Your task to perform on an android device: Open Yahoo.com Image 0: 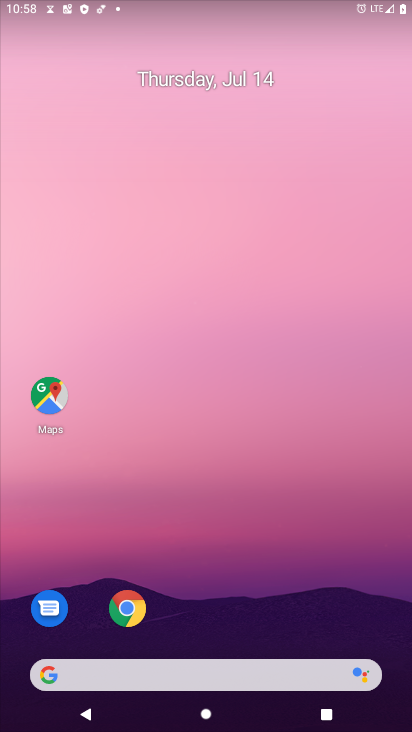
Step 0: click (127, 609)
Your task to perform on an android device: Open Yahoo.com Image 1: 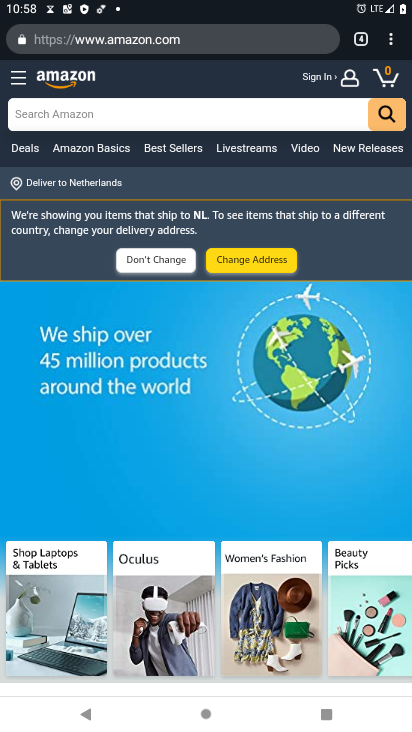
Step 1: click (396, 41)
Your task to perform on an android device: Open Yahoo.com Image 2: 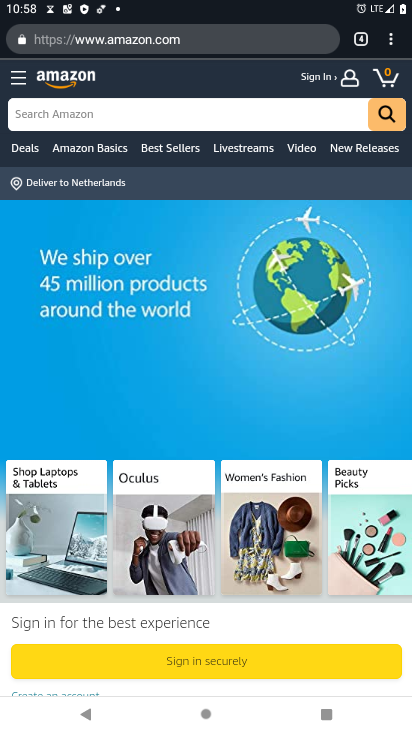
Step 2: click (394, 50)
Your task to perform on an android device: Open Yahoo.com Image 3: 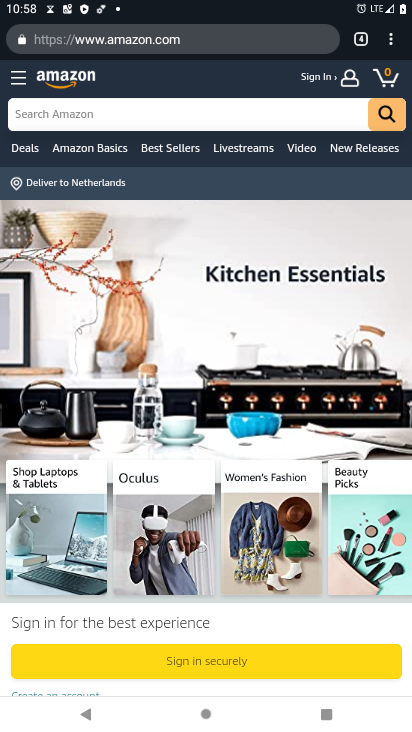
Step 3: click (391, 46)
Your task to perform on an android device: Open Yahoo.com Image 4: 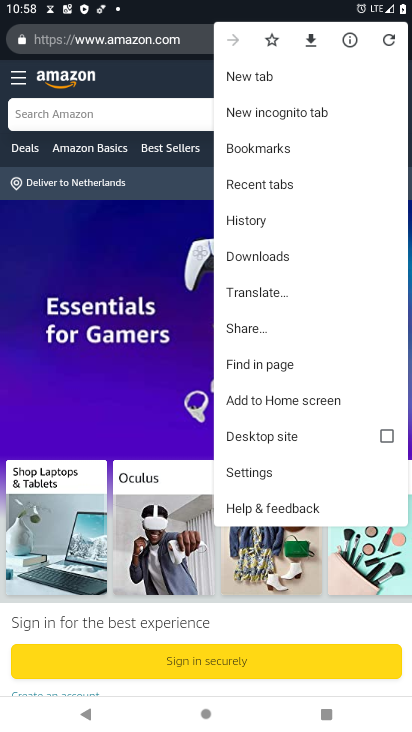
Step 4: click (252, 76)
Your task to perform on an android device: Open Yahoo.com Image 5: 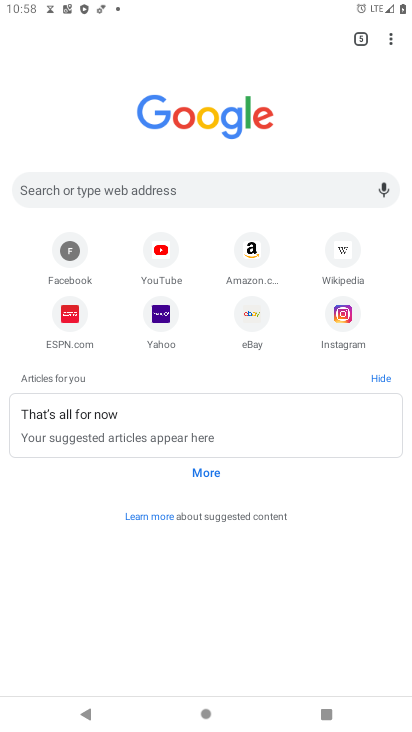
Step 5: click (153, 317)
Your task to perform on an android device: Open Yahoo.com Image 6: 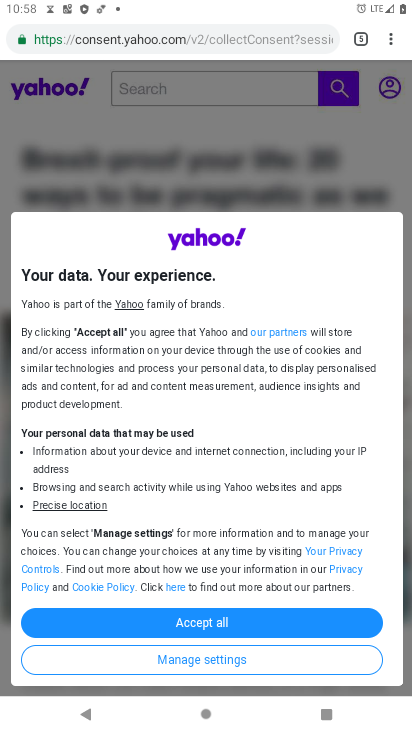
Step 6: task complete